Your task to perform on an android device: Open the calendar and show me this week's events Image 0: 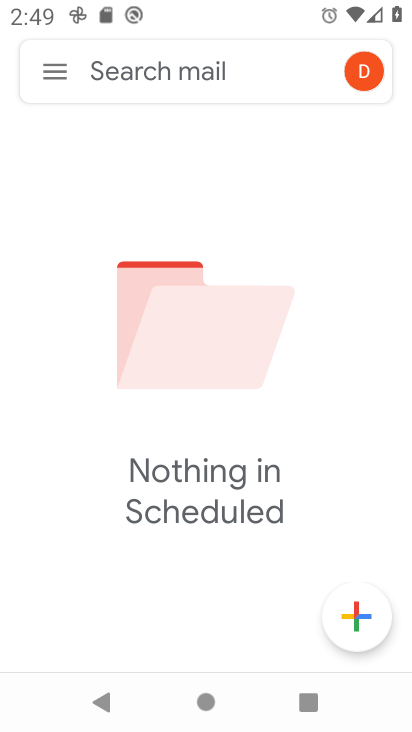
Step 0: press home button
Your task to perform on an android device: Open the calendar and show me this week's events Image 1: 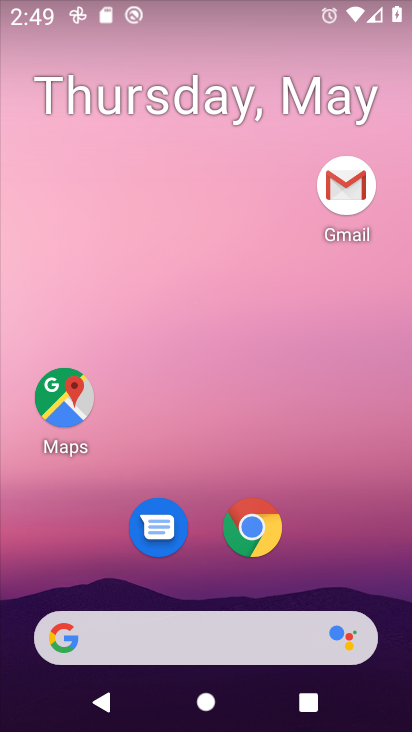
Step 1: drag from (272, 601) to (319, 85)
Your task to perform on an android device: Open the calendar and show me this week's events Image 2: 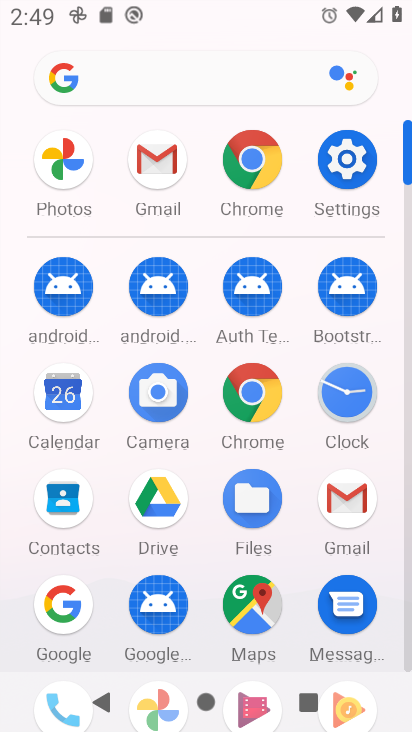
Step 2: click (64, 377)
Your task to perform on an android device: Open the calendar and show me this week's events Image 3: 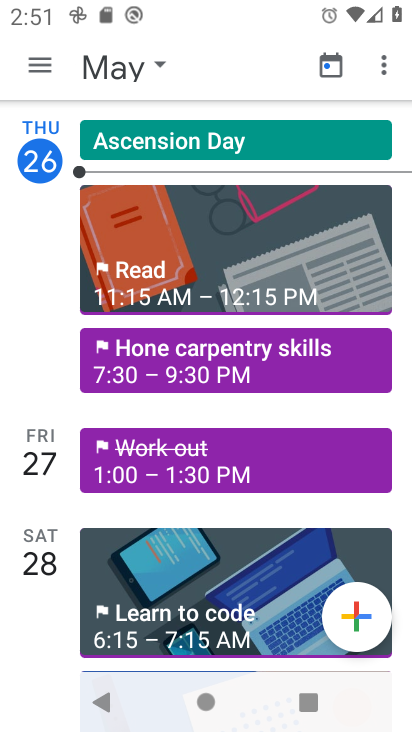
Step 3: task complete